Your task to perform on an android device: Open CNN.com Image 0: 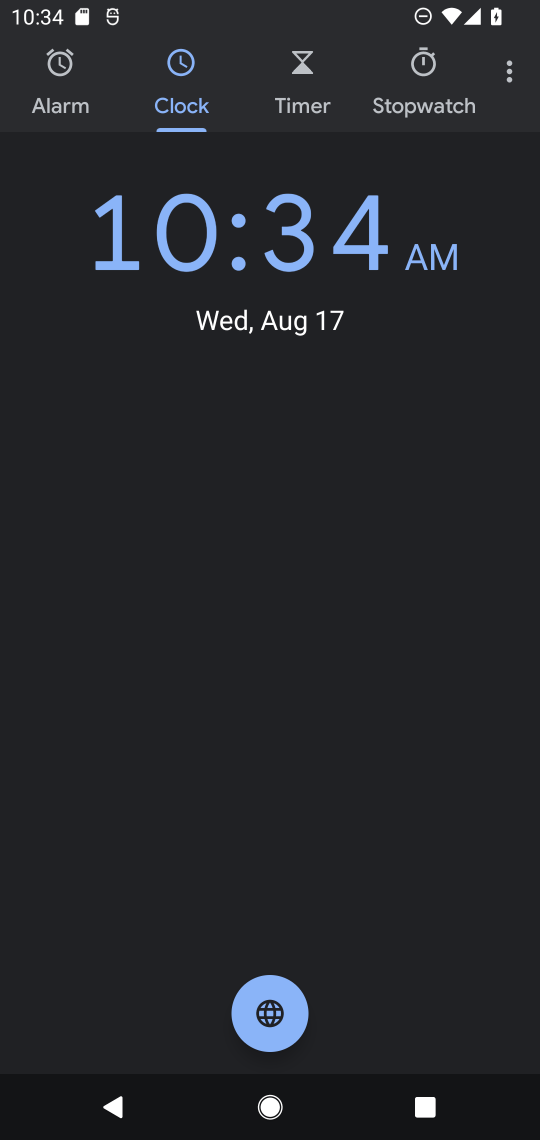
Step 0: press home button
Your task to perform on an android device: Open CNN.com Image 1: 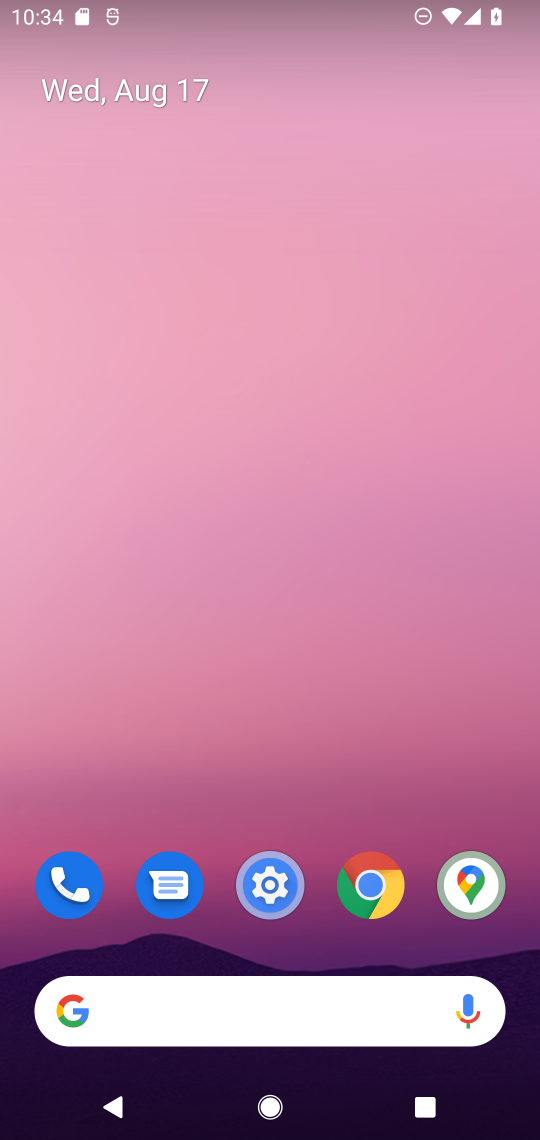
Step 1: click (367, 888)
Your task to perform on an android device: Open CNN.com Image 2: 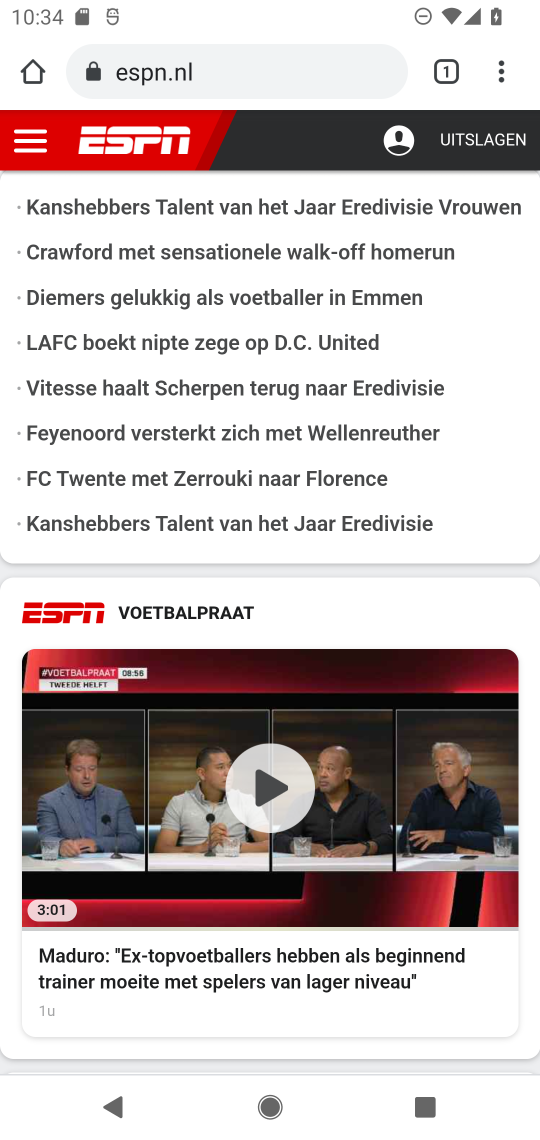
Step 2: click (293, 61)
Your task to perform on an android device: Open CNN.com Image 3: 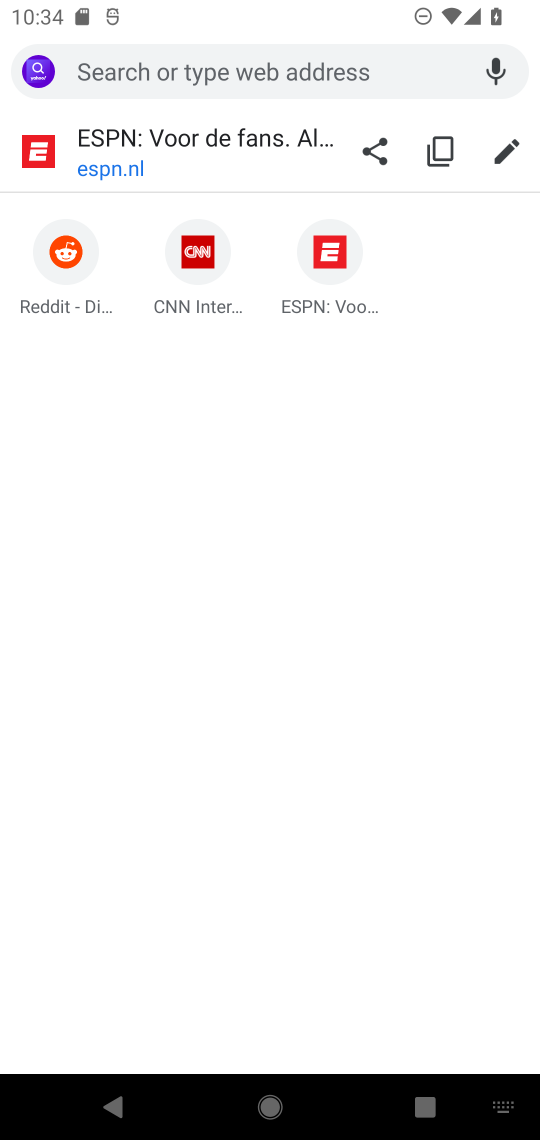
Step 3: type "cnn.com"
Your task to perform on an android device: Open CNN.com Image 4: 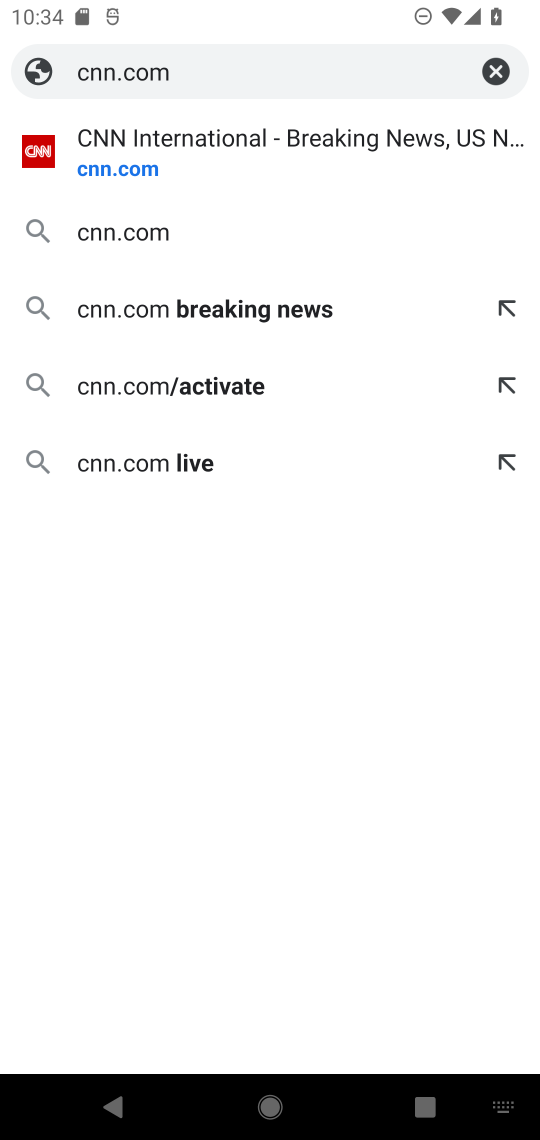
Step 4: click (133, 129)
Your task to perform on an android device: Open CNN.com Image 5: 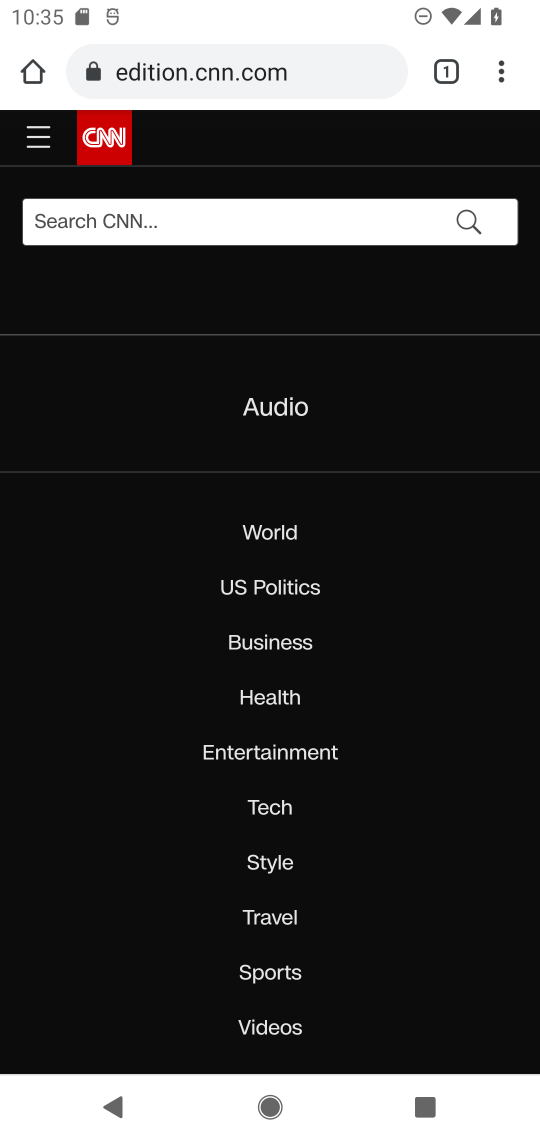
Step 5: task complete